Your task to perform on an android device: toggle notification dots Image 0: 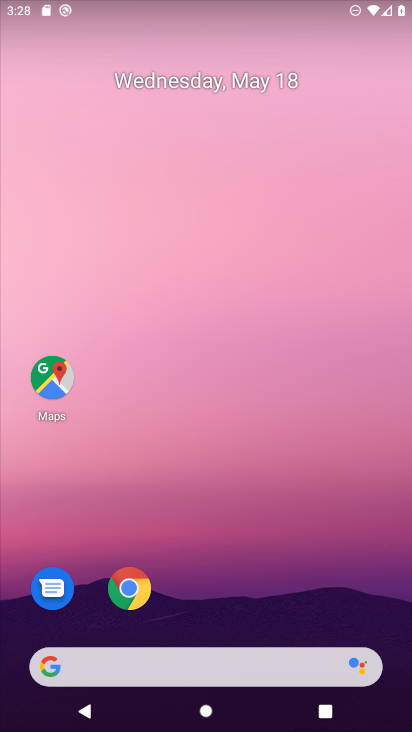
Step 0: drag from (265, 583) to (242, 69)
Your task to perform on an android device: toggle notification dots Image 1: 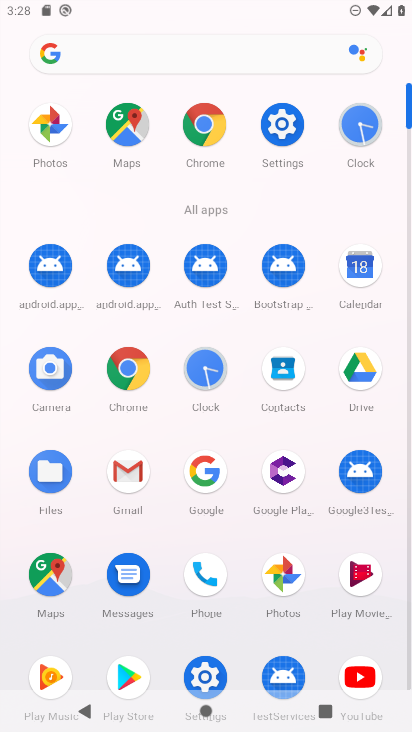
Step 1: click (268, 96)
Your task to perform on an android device: toggle notification dots Image 2: 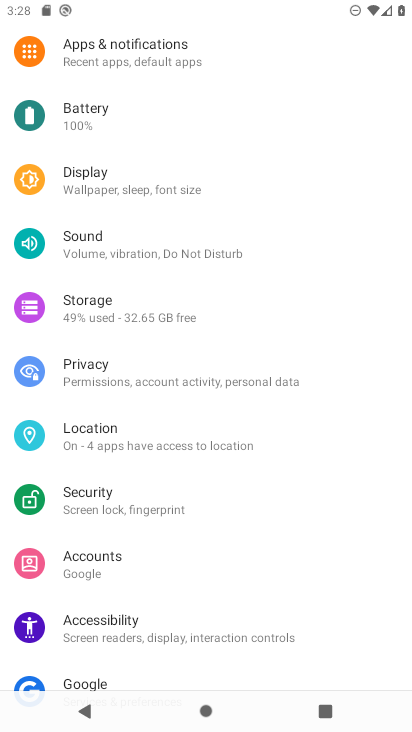
Step 2: click (149, 74)
Your task to perform on an android device: toggle notification dots Image 3: 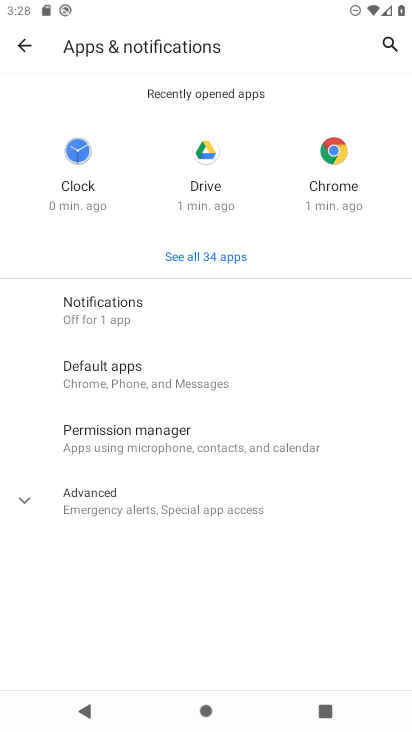
Step 3: click (119, 329)
Your task to perform on an android device: toggle notification dots Image 4: 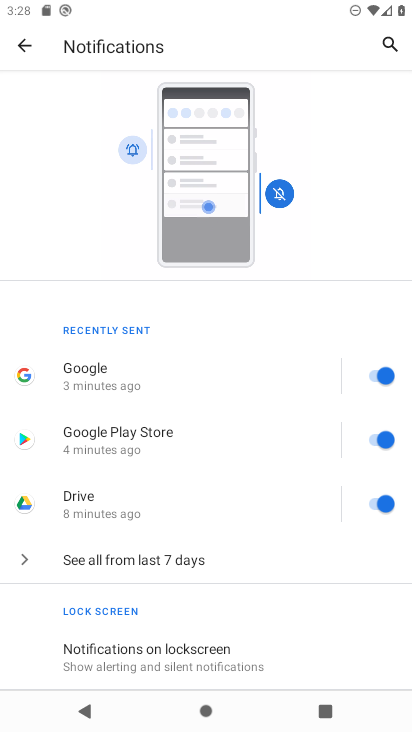
Step 4: drag from (151, 621) to (169, 187)
Your task to perform on an android device: toggle notification dots Image 5: 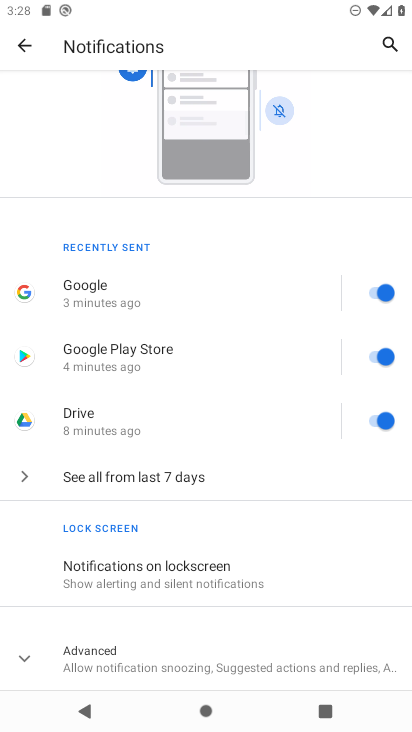
Step 5: drag from (157, 632) to (182, 63)
Your task to perform on an android device: toggle notification dots Image 6: 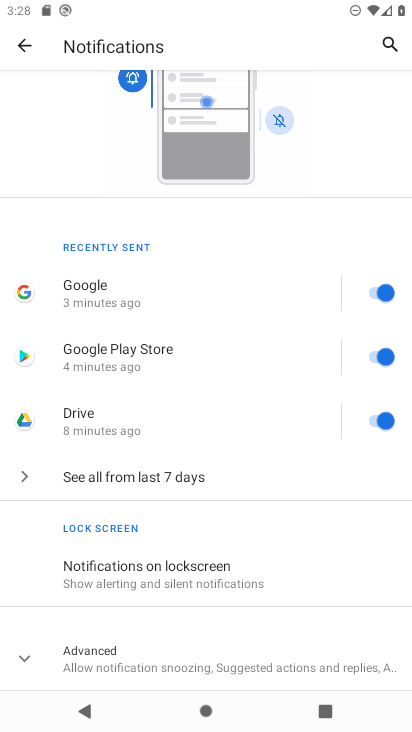
Step 6: click (153, 642)
Your task to perform on an android device: toggle notification dots Image 7: 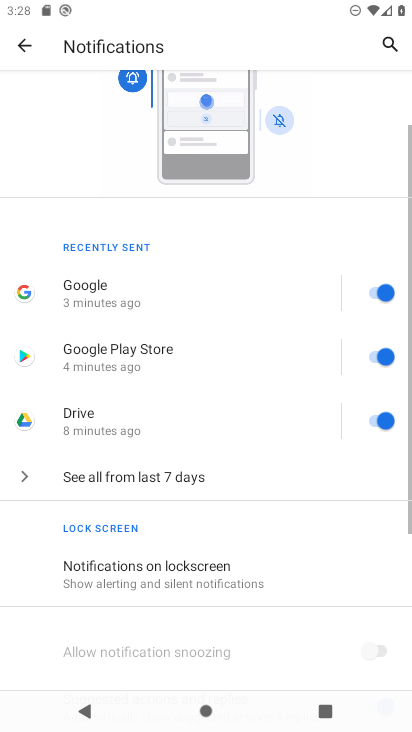
Step 7: drag from (160, 631) to (173, 134)
Your task to perform on an android device: toggle notification dots Image 8: 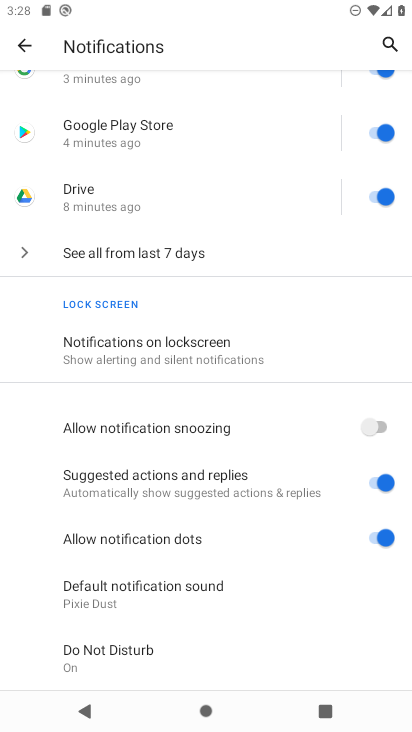
Step 8: click (351, 526)
Your task to perform on an android device: toggle notification dots Image 9: 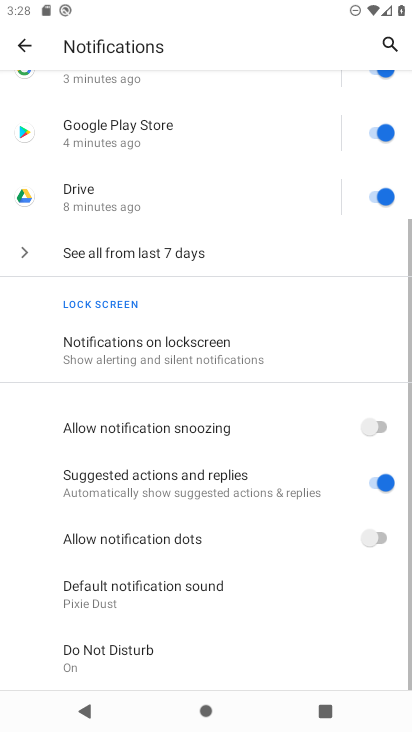
Step 9: task complete